Your task to perform on an android device: open app "Pluto TV - Live TV and Movies" (install if not already installed), go to login, and select forgot password Image 0: 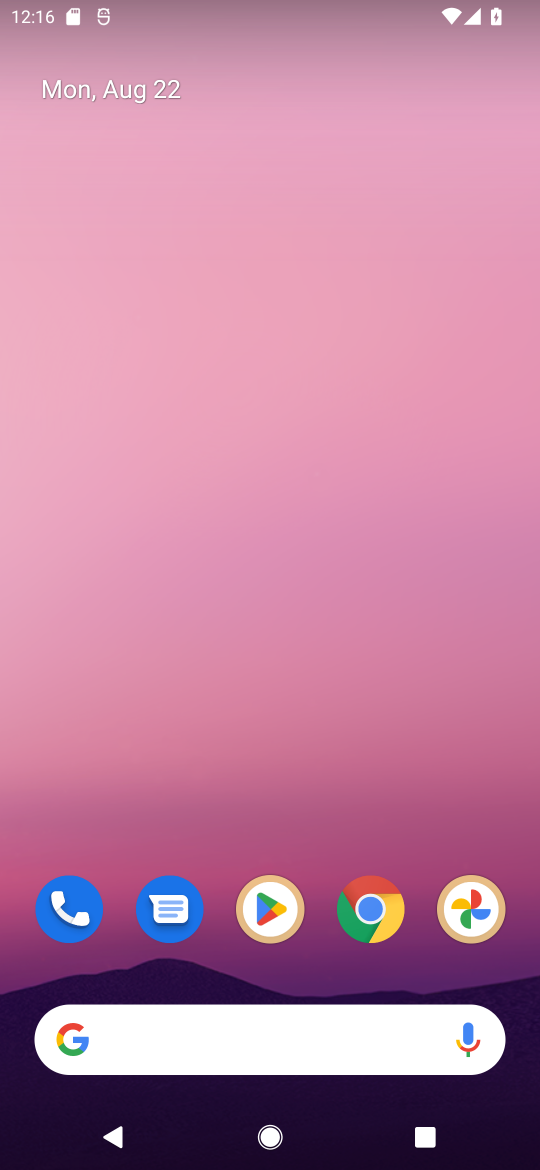
Step 0: click (273, 899)
Your task to perform on an android device: open app "Pluto TV - Live TV and Movies" (install if not already installed), go to login, and select forgot password Image 1: 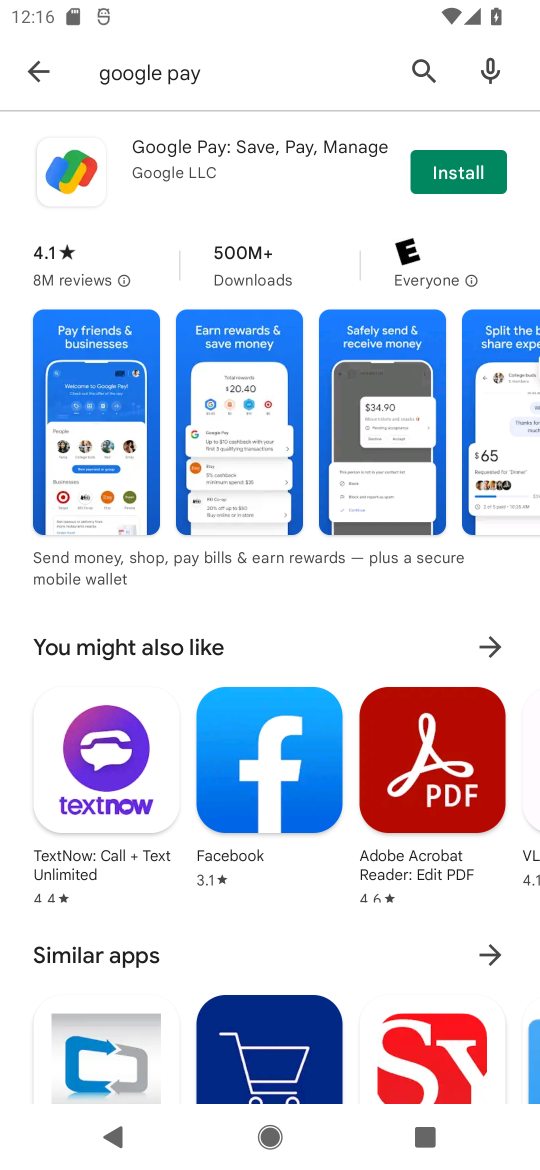
Step 1: click (426, 80)
Your task to perform on an android device: open app "Pluto TV - Live TV and Movies" (install if not already installed), go to login, and select forgot password Image 2: 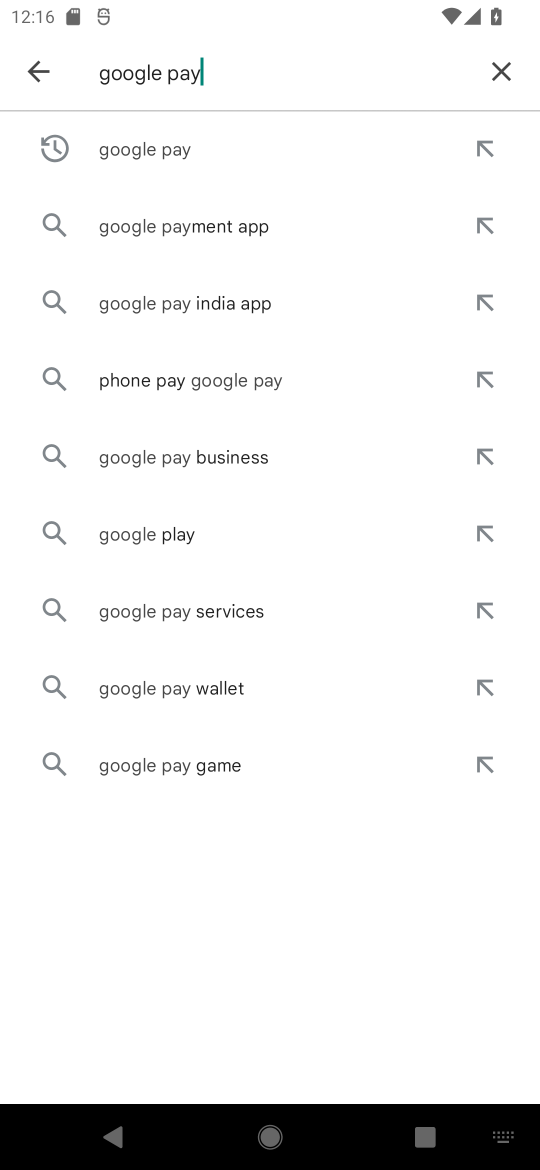
Step 2: click (508, 73)
Your task to perform on an android device: open app "Pluto TV - Live TV and Movies" (install if not already installed), go to login, and select forgot password Image 3: 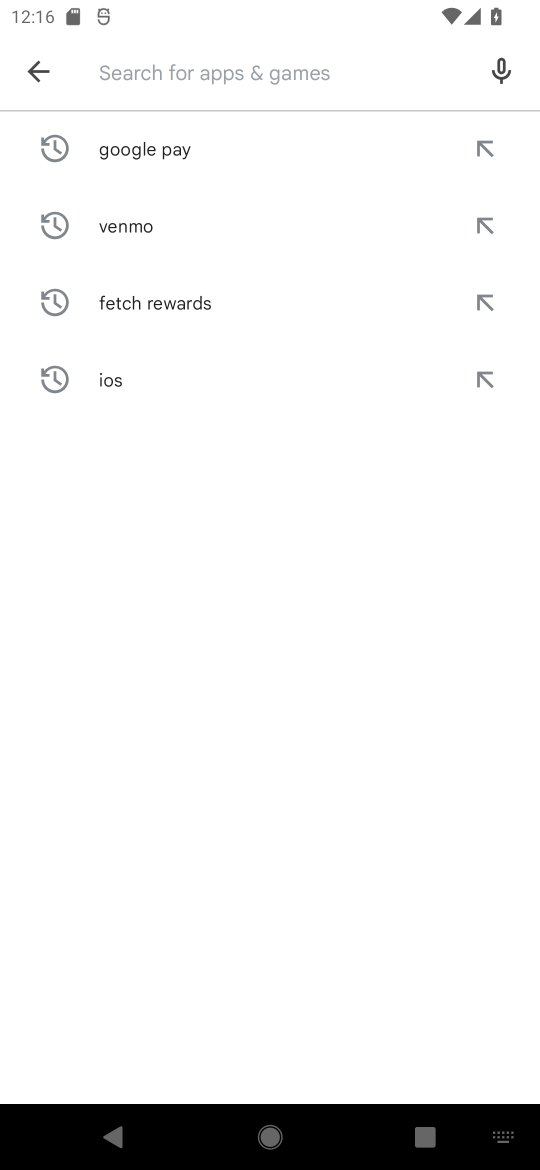
Step 3: click (187, 72)
Your task to perform on an android device: open app "Pluto TV - Live TV and Movies" (install if not already installed), go to login, and select forgot password Image 4: 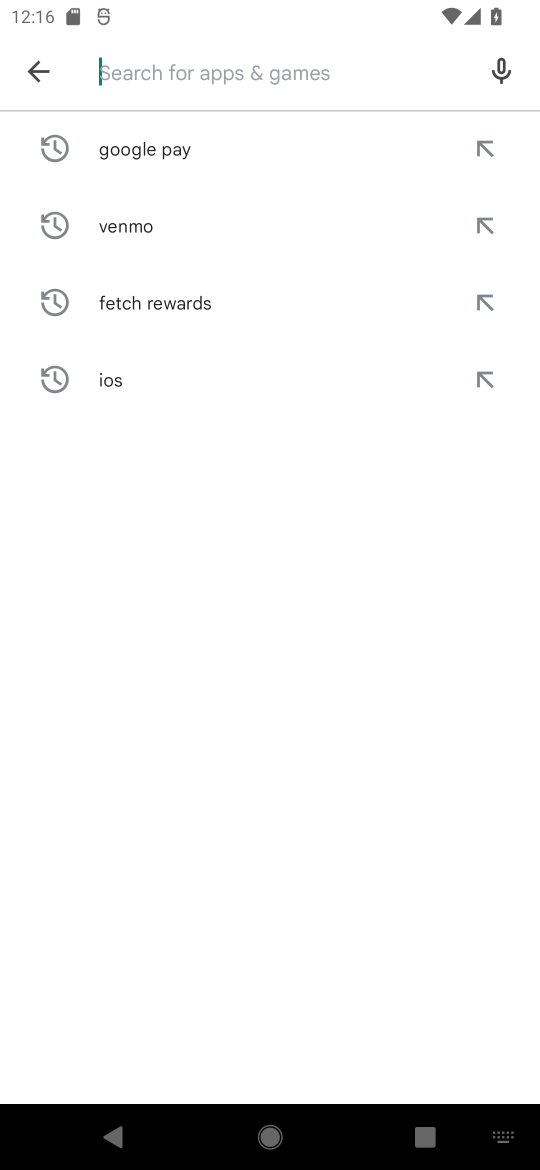
Step 4: type "pluto tv"
Your task to perform on an android device: open app "Pluto TV - Live TV and Movies" (install if not already installed), go to login, and select forgot password Image 5: 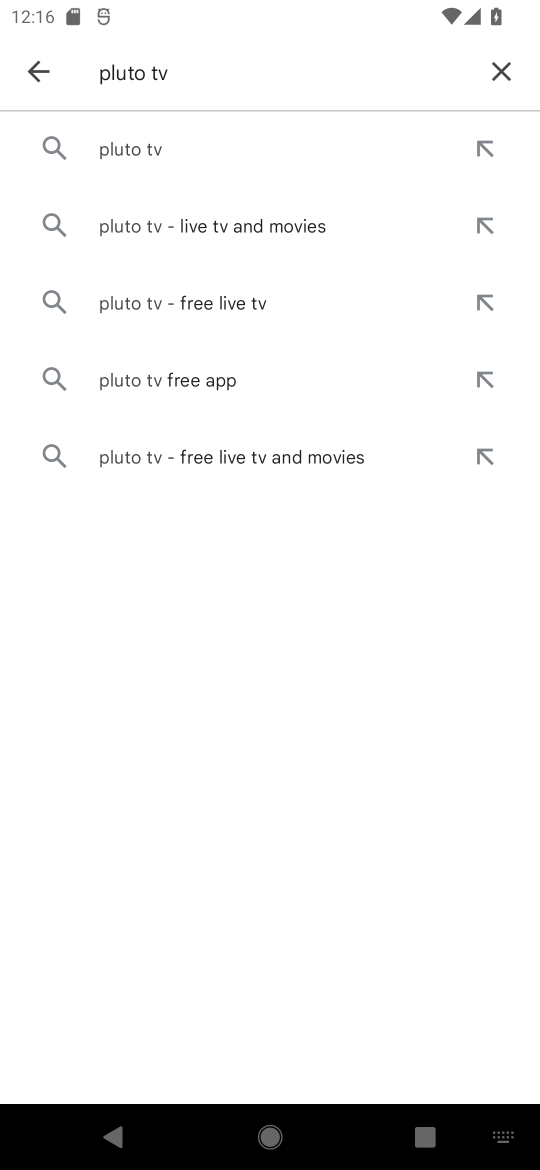
Step 5: click (187, 158)
Your task to perform on an android device: open app "Pluto TV - Live TV and Movies" (install if not already installed), go to login, and select forgot password Image 6: 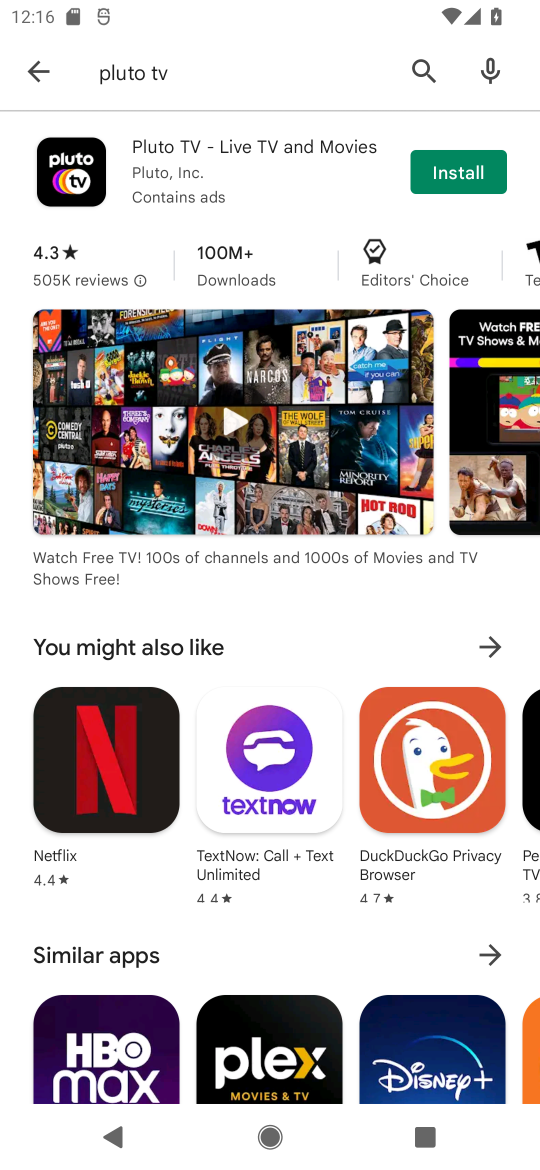
Step 6: click (458, 163)
Your task to perform on an android device: open app "Pluto TV - Live TV and Movies" (install if not already installed), go to login, and select forgot password Image 7: 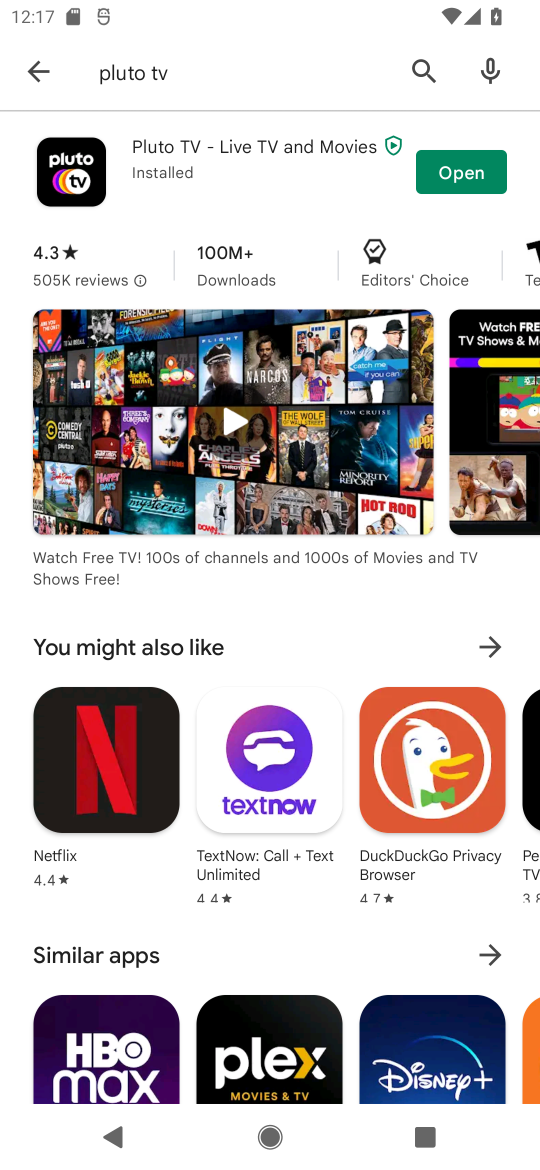
Step 7: click (478, 176)
Your task to perform on an android device: open app "Pluto TV - Live TV and Movies" (install if not already installed), go to login, and select forgot password Image 8: 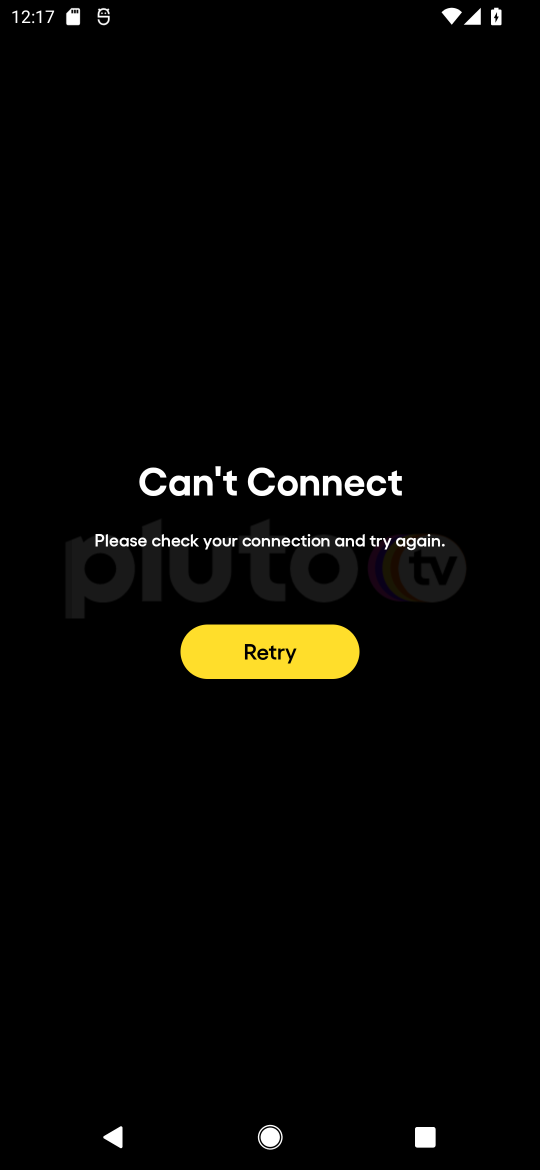
Step 8: task complete